Your task to perform on an android device: Go to eBay Image 0: 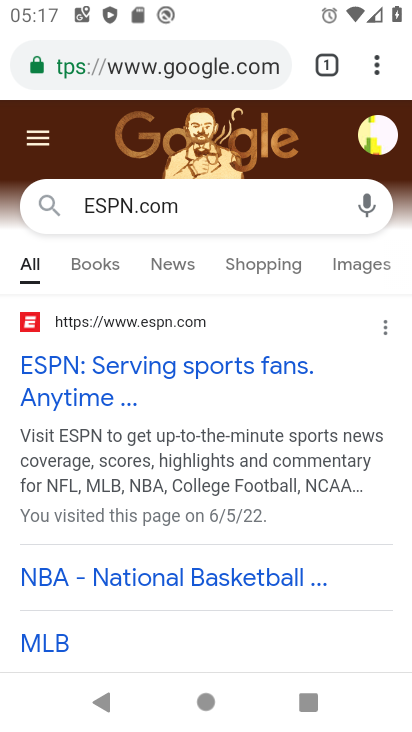
Step 0: click (282, 65)
Your task to perform on an android device: Go to eBay Image 1: 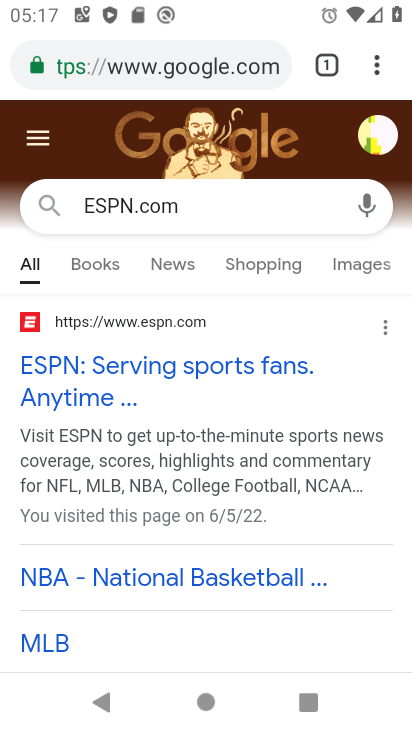
Step 1: click (270, 74)
Your task to perform on an android device: Go to eBay Image 2: 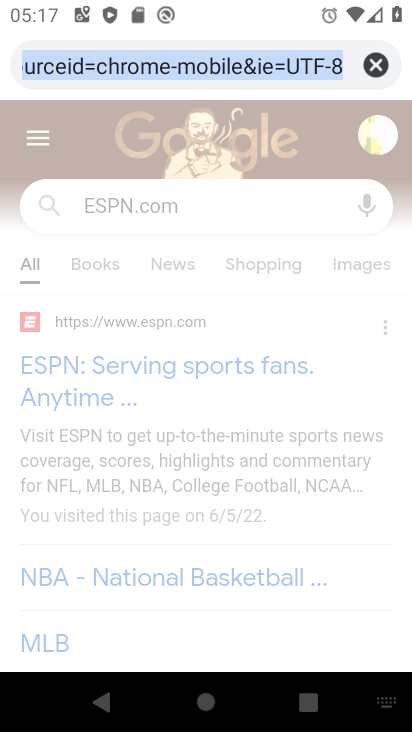
Step 2: click (385, 58)
Your task to perform on an android device: Go to eBay Image 3: 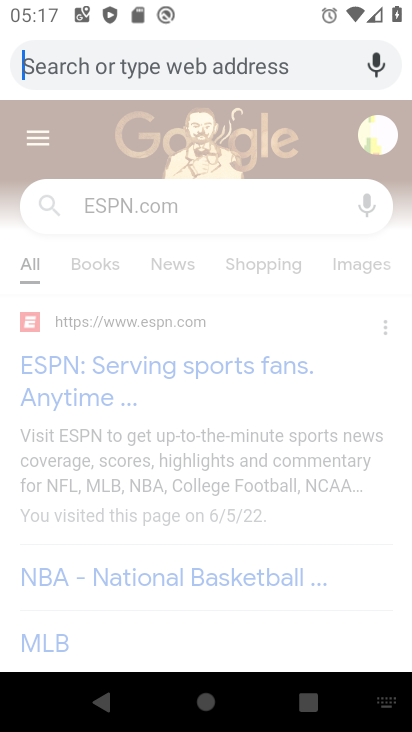
Step 3: type "eBay"
Your task to perform on an android device: Go to eBay Image 4: 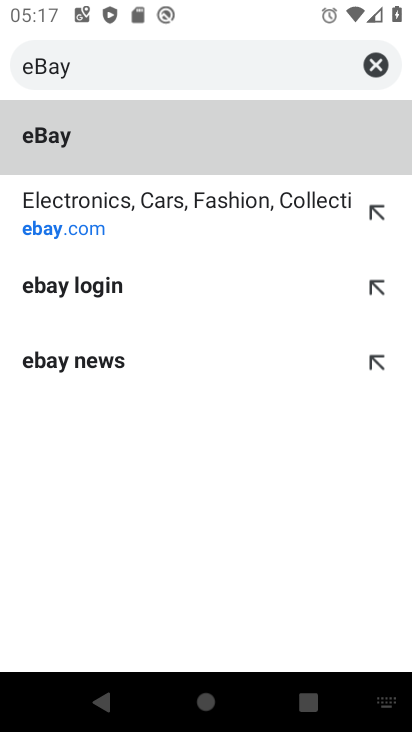
Step 4: click (66, 142)
Your task to perform on an android device: Go to eBay Image 5: 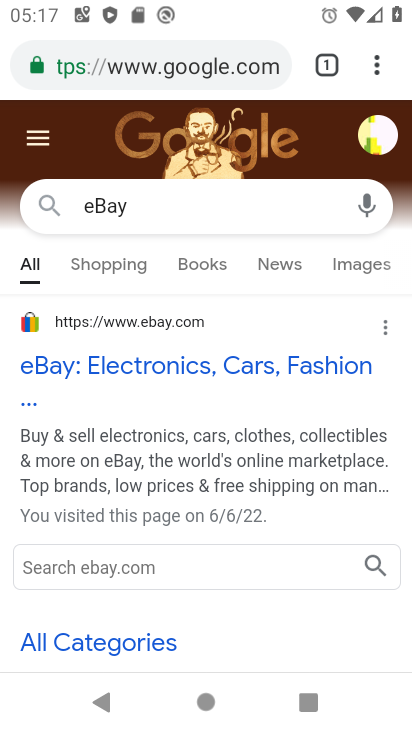
Step 5: task complete